Your task to perform on an android device: delete location history Image 0: 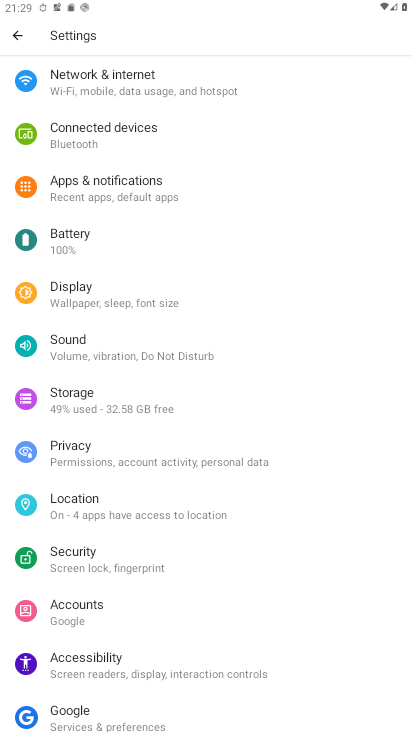
Step 0: click (108, 507)
Your task to perform on an android device: delete location history Image 1: 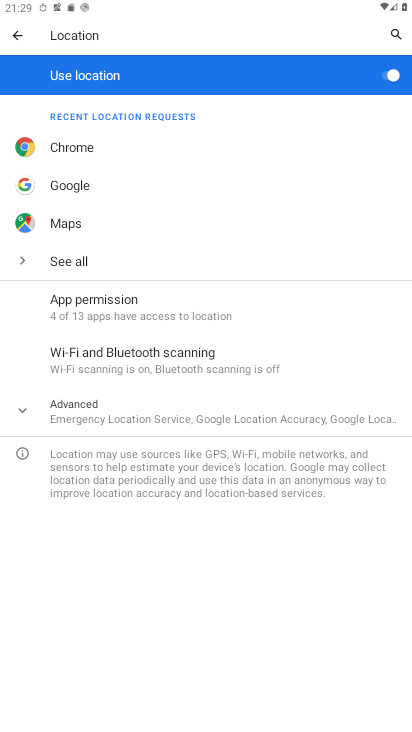
Step 1: click (170, 412)
Your task to perform on an android device: delete location history Image 2: 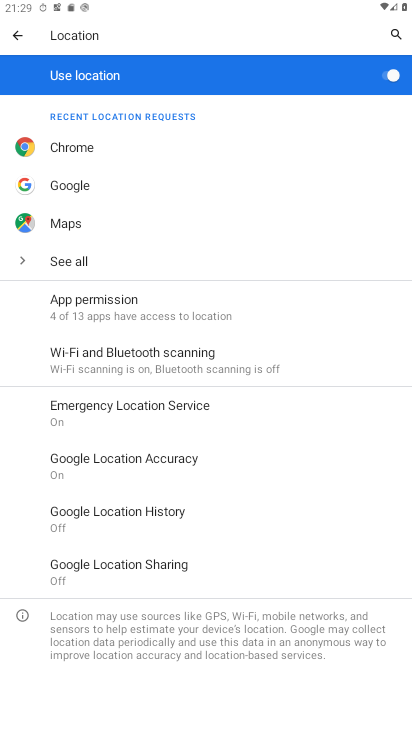
Step 2: click (156, 509)
Your task to perform on an android device: delete location history Image 3: 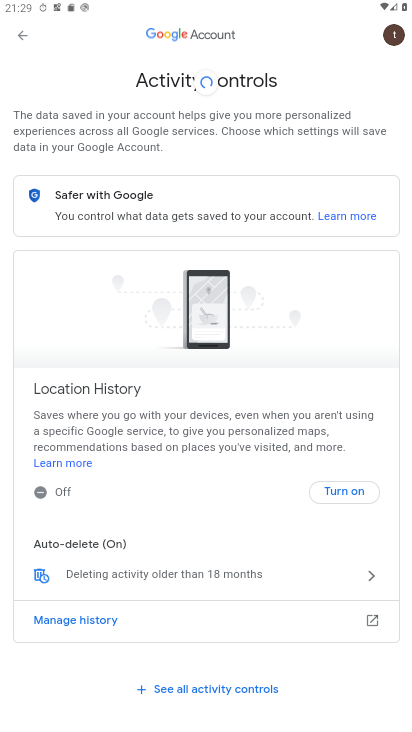
Step 3: click (84, 614)
Your task to perform on an android device: delete location history Image 4: 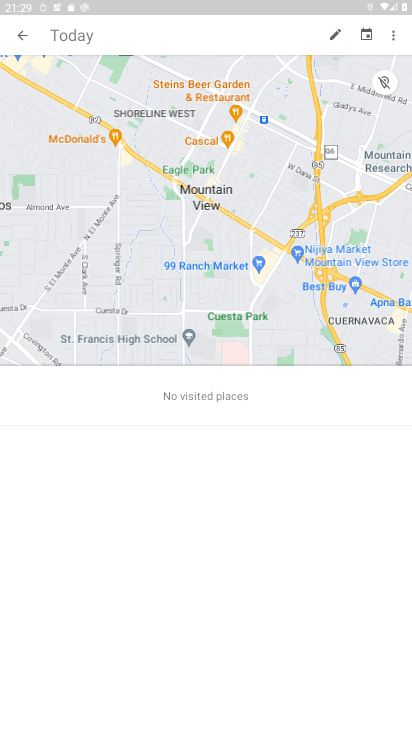
Step 4: click (391, 40)
Your task to perform on an android device: delete location history Image 5: 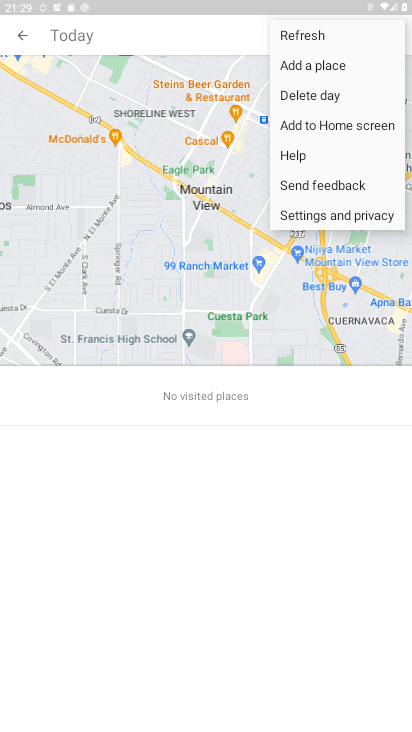
Step 5: click (329, 216)
Your task to perform on an android device: delete location history Image 6: 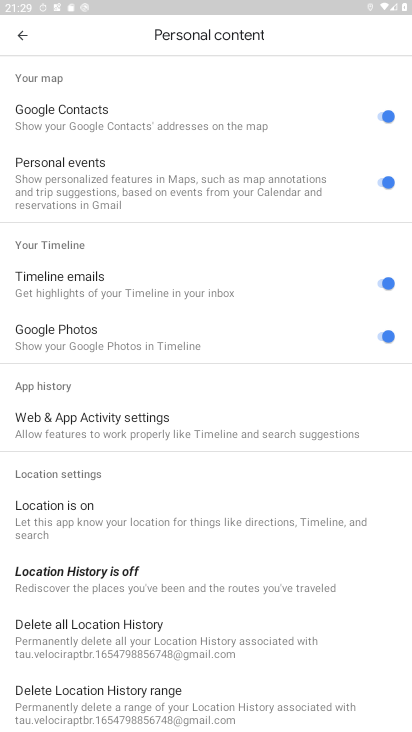
Step 6: click (83, 629)
Your task to perform on an android device: delete location history Image 7: 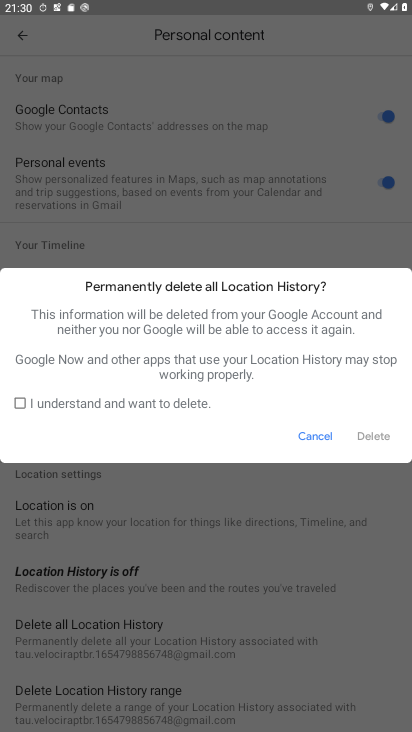
Step 7: click (18, 407)
Your task to perform on an android device: delete location history Image 8: 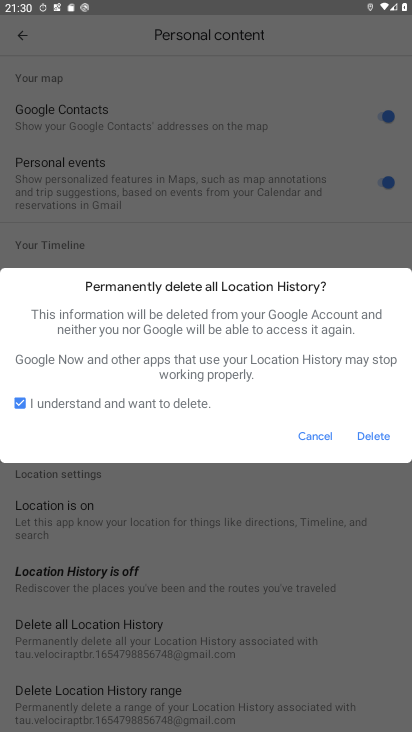
Step 8: click (373, 435)
Your task to perform on an android device: delete location history Image 9: 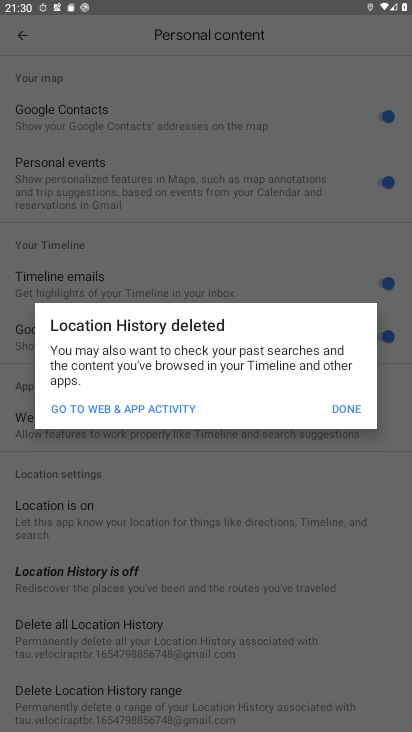
Step 9: click (353, 399)
Your task to perform on an android device: delete location history Image 10: 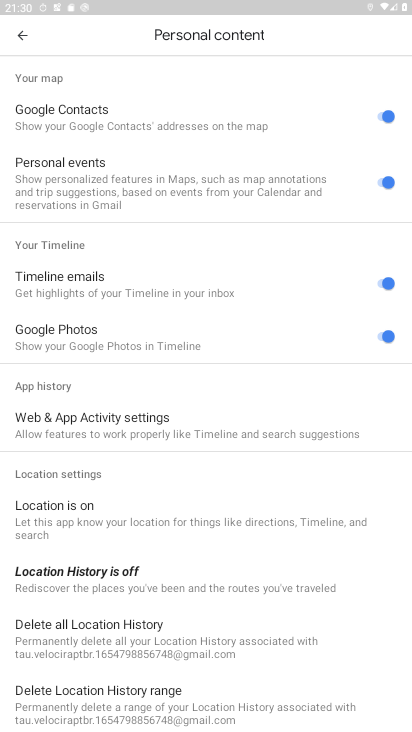
Step 10: task complete